Your task to perform on an android device: Is it going to rain this weekend? Image 0: 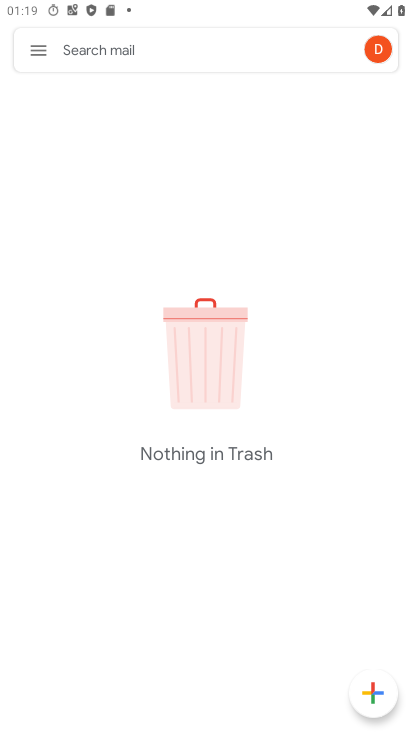
Step 0: press home button
Your task to perform on an android device: Is it going to rain this weekend? Image 1: 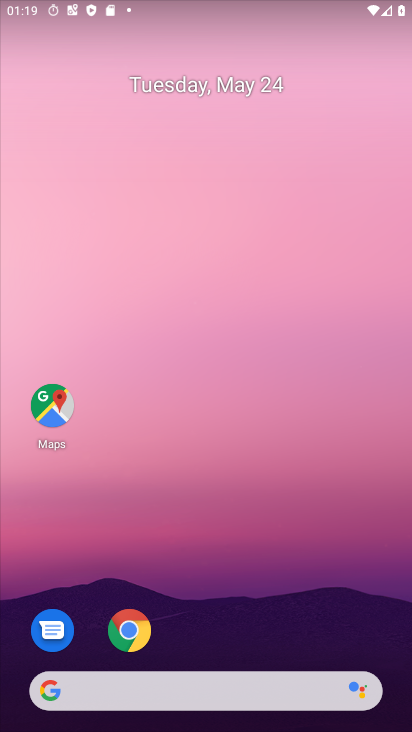
Step 1: click (92, 689)
Your task to perform on an android device: Is it going to rain this weekend? Image 2: 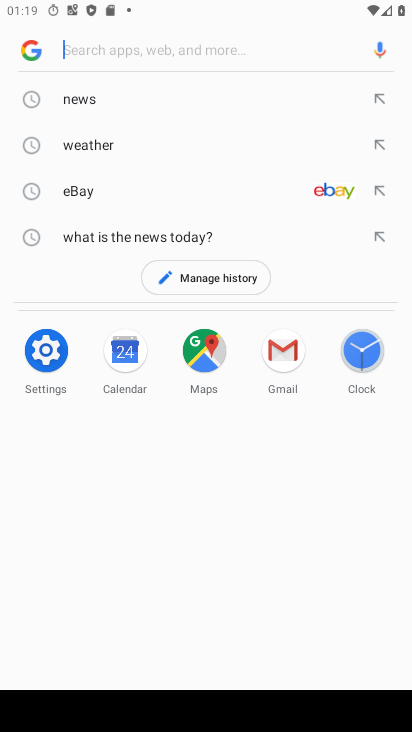
Step 2: click (88, 145)
Your task to perform on an android device: Is it going to rain this weekend? Image 3: 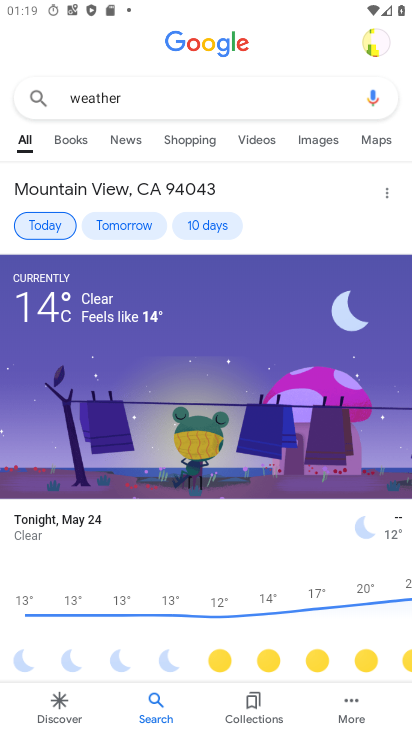
Step 3: click (222, 226)
Your task to perform on an android device: Is it going to rain this weekend? Image 4: 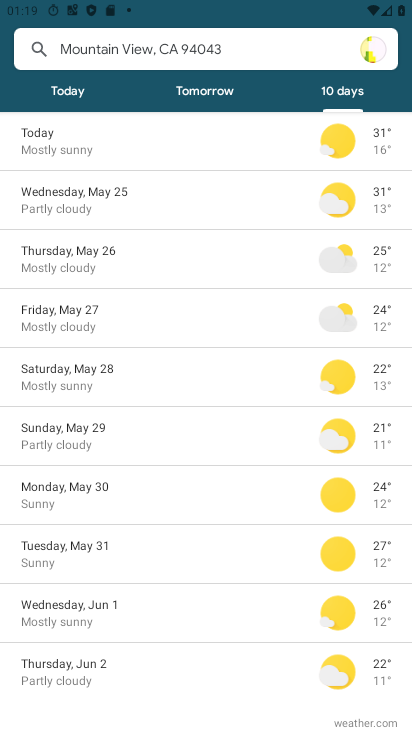
Step 4: task complete